Your task to perform on an android device: turn smart compose on in the gmail app Image 0: 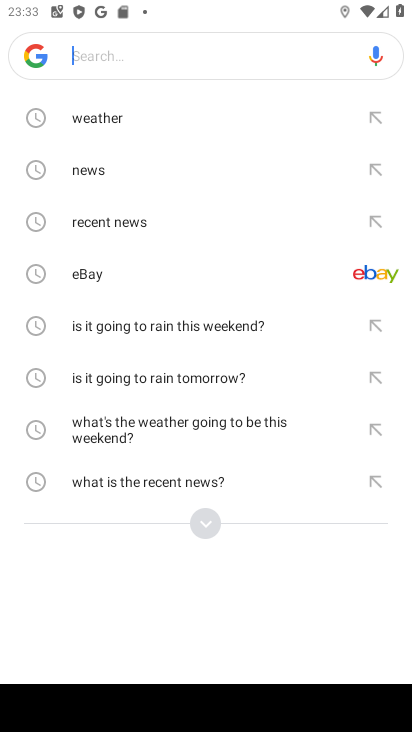
Step 0: press home button
Your task to perform on an android device: turn smart compose on in the gmail app Image 1: 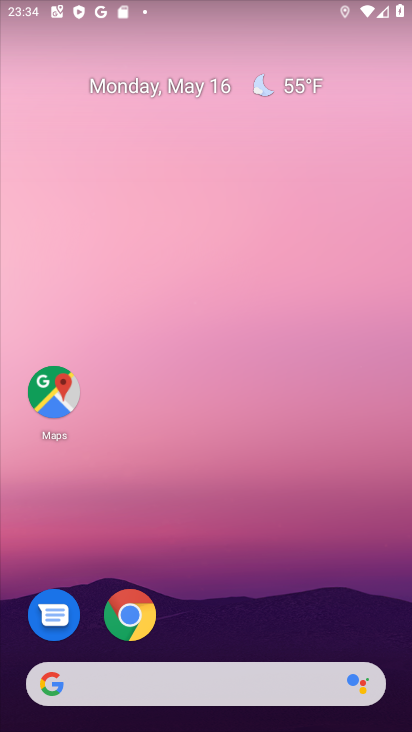
Step 1: drag from (188, 647) to (183, 119)
Your task to perform on an android device: turn smart compose on in the gmail app Image 2: 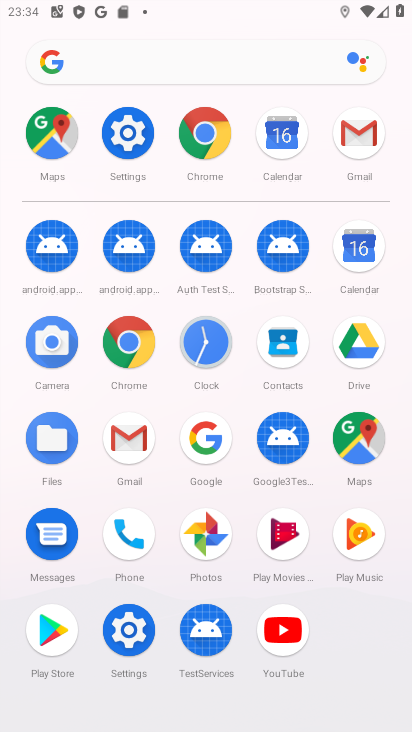
Step 2: click (125, 454)
Your task to perform on an android device: turn smart compose on in the gmail app Image 3: 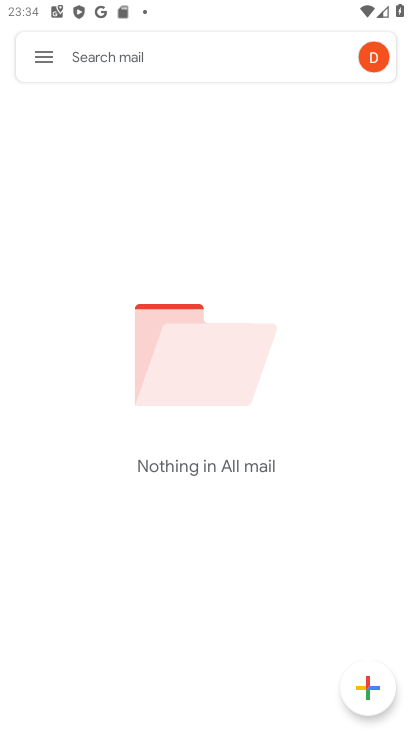
Step 3: click (50, 45)
Your task to perform on an android device: turn smart compose on in the gmail app Image 4: 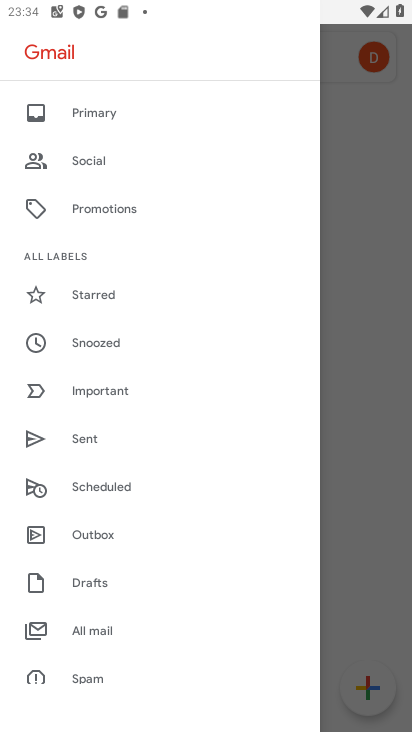
Step 4: drag from (137, 607) to (148, 184)
Your task to perform on an android device: turn smart compose on in the gmail app Image 5: 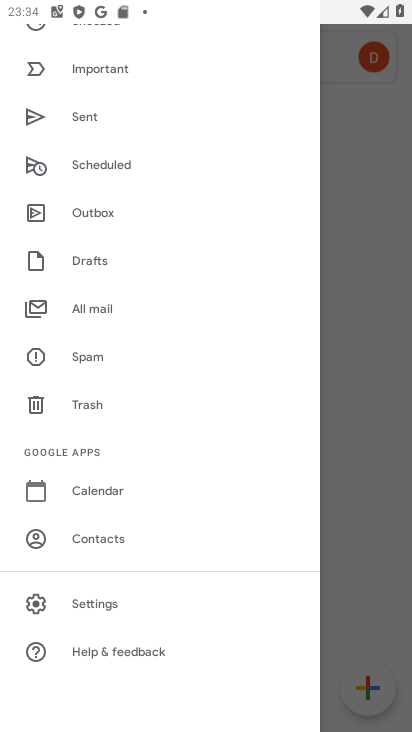
Step 5: click (99, 595)
Your task to perform on an android device: turn smart compose on in the gmail app Image 6: 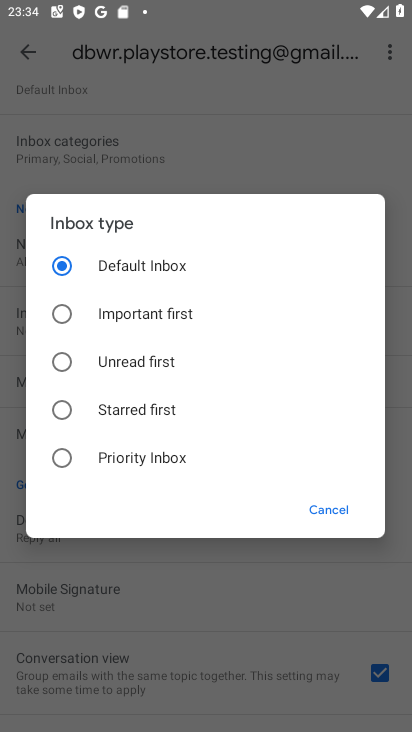
Step 6: click (319, 509)
Your task to perform on an android device: turn smart compose on in the gmail app Image 7: 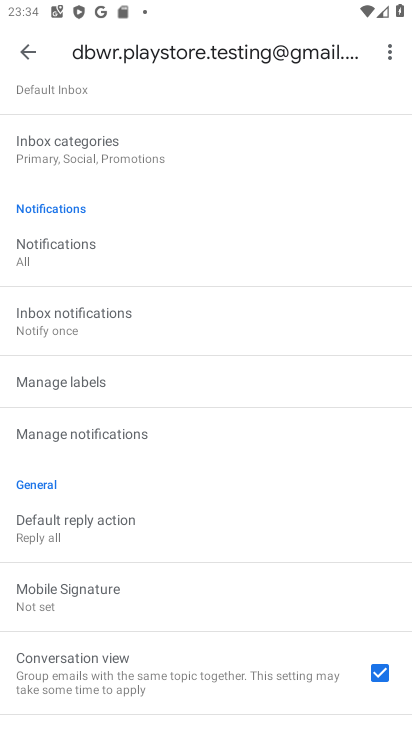
Step 7: task complete